Your task to perform on an android device: Open calendar and show me the first week of next month Image 0: 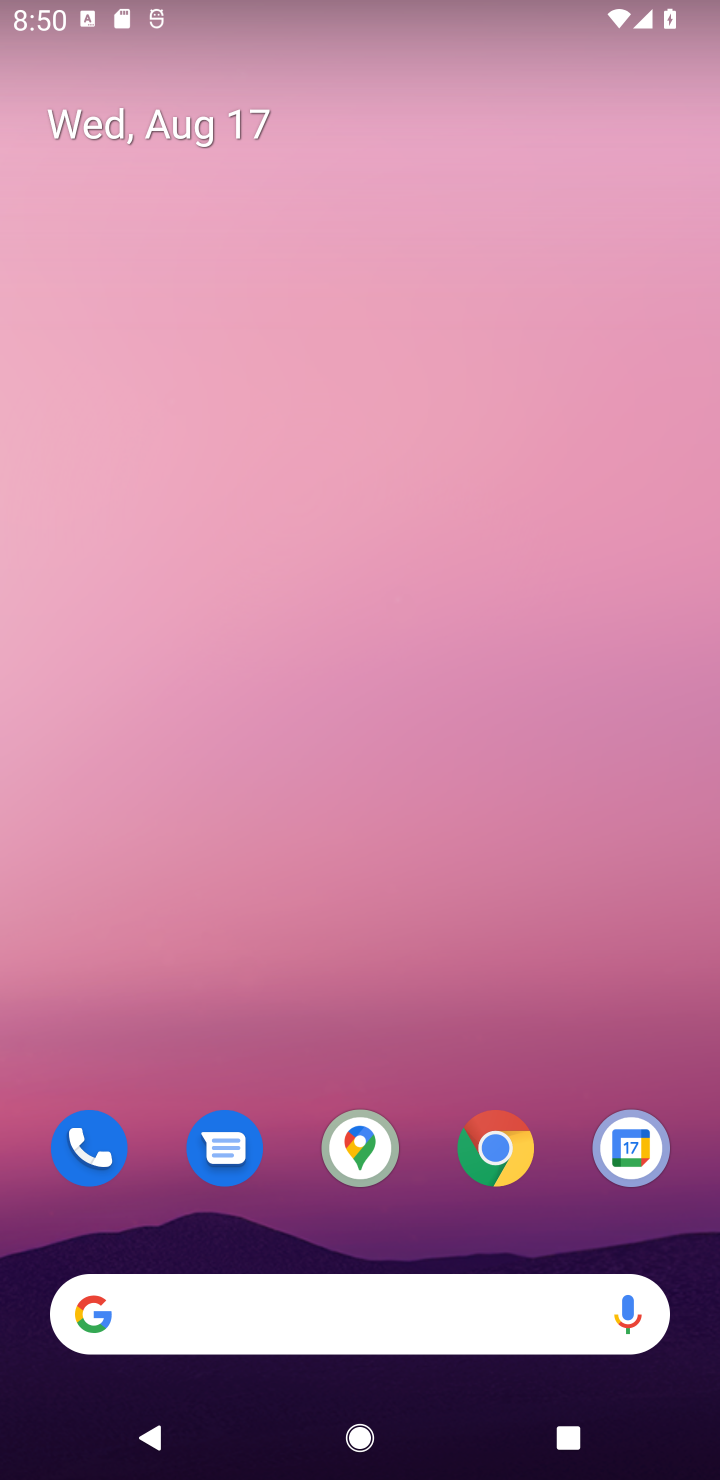
Step 0: click (634, 1144)
Your task to perform on an android device: Open calendar and show me the first week of next month Image 1: 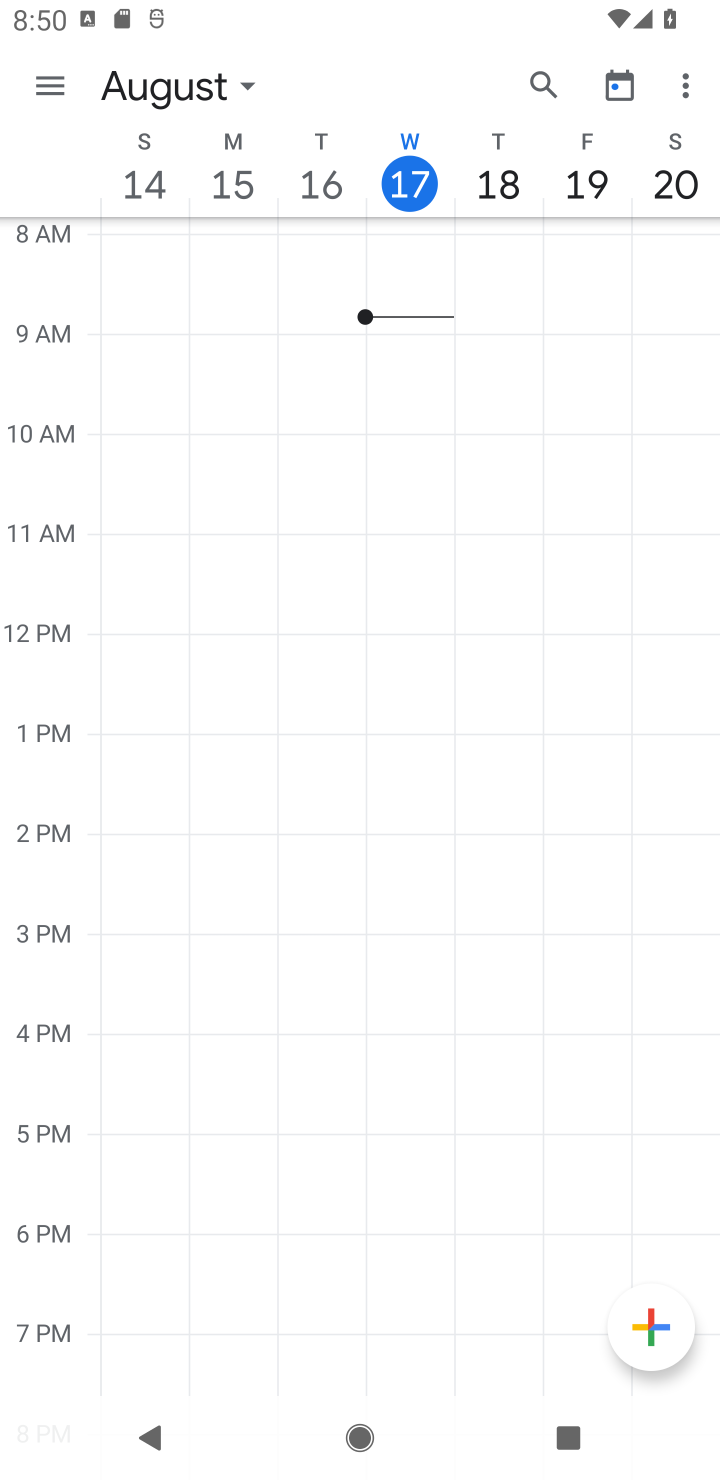
Step 1: click (237, 84)
Your task to perform on an android device: Open calendar and show me the first week of next month Image 2: 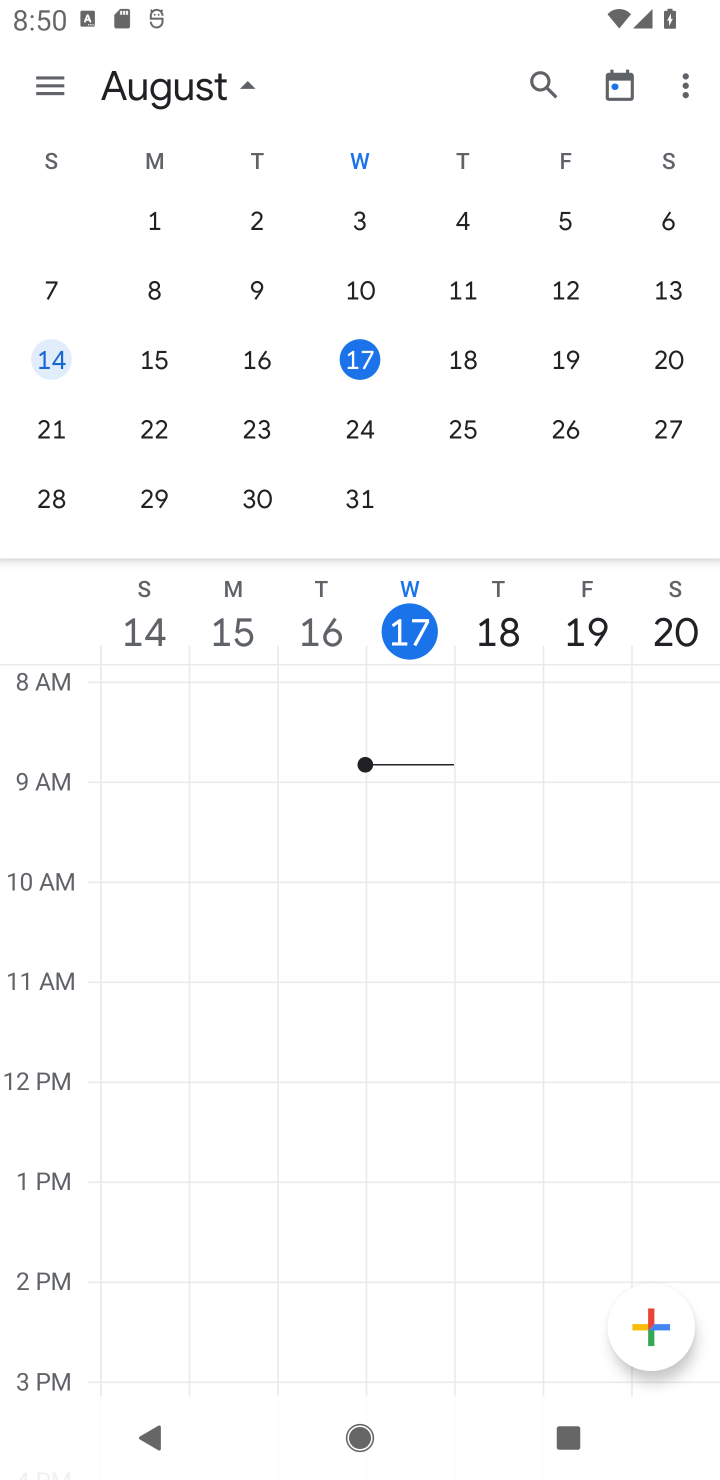
Step 2: drag from (663, 364) to (94, 346)
Your task to perform on an android device: Open calendar and show me the first week of next month Image 3: 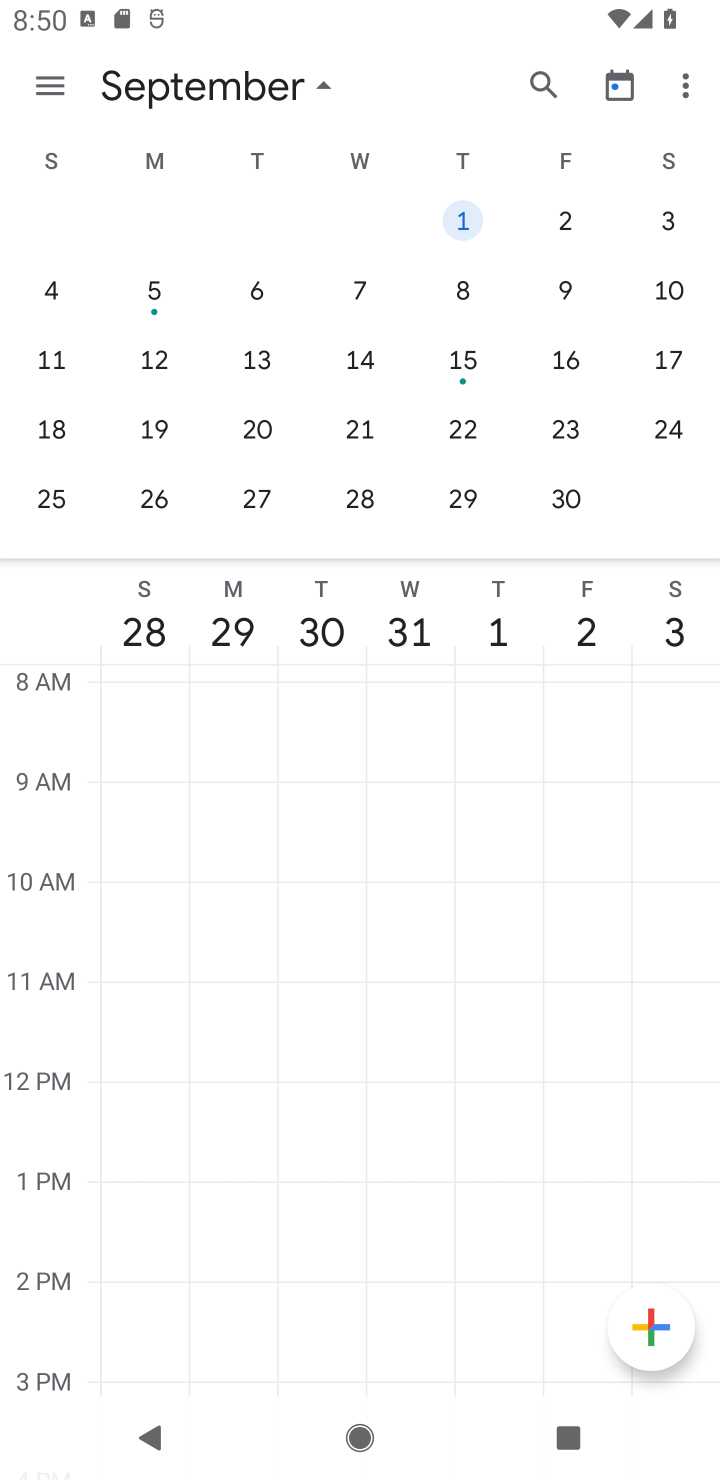
Step 3: click (58, 293)
Your task to perform on an android device: Open calendar and show me the first week of next month Image 4: 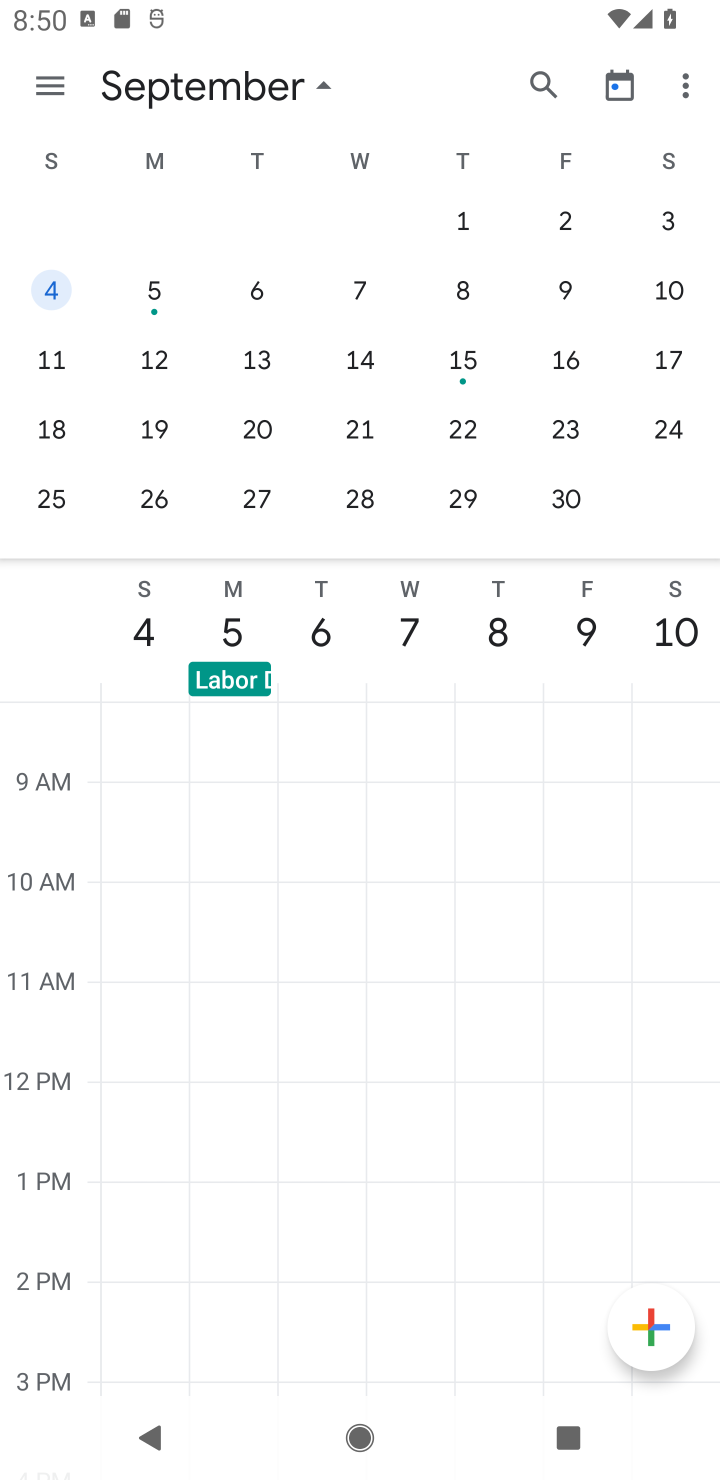
Step 4: task complete